Your task to perform on an android device: turn on location history Image 0: 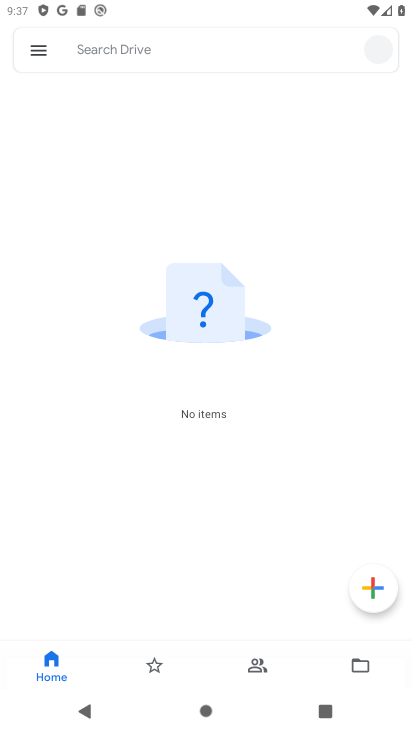
Step 0: press home button
Your task to perform on an android device: turn on location history Image 1: 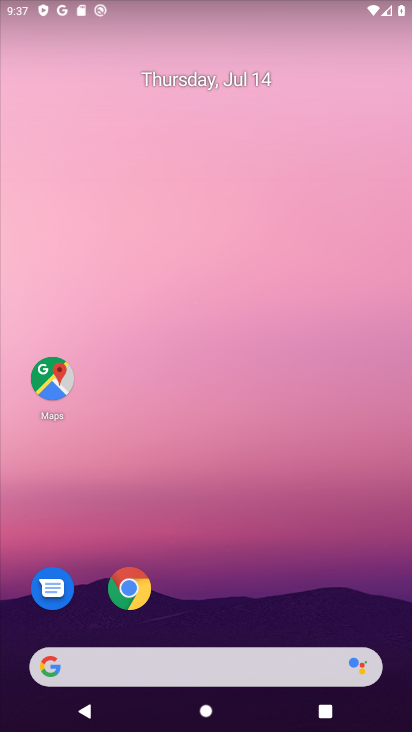
Step 1: click (58, 390)
Your task to perform on an android device: turn on location history Image 2: 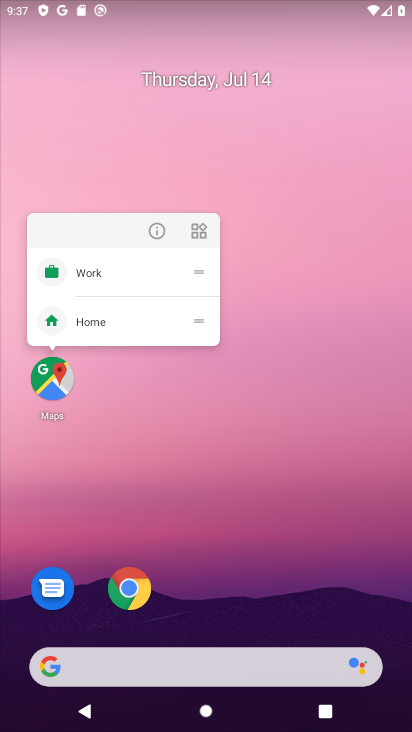
Step 2: click (49, 378)
Your task to perform on an android device: turn on location history Image 3: 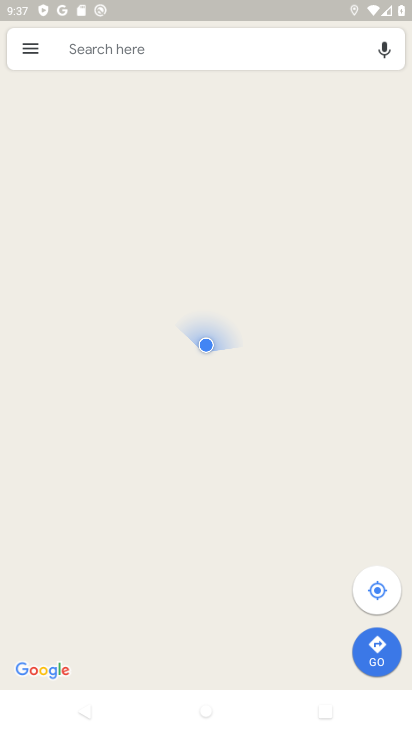
Step 3: click (27, 47)
Your task to perform on an android device: turn on location history Image 4: 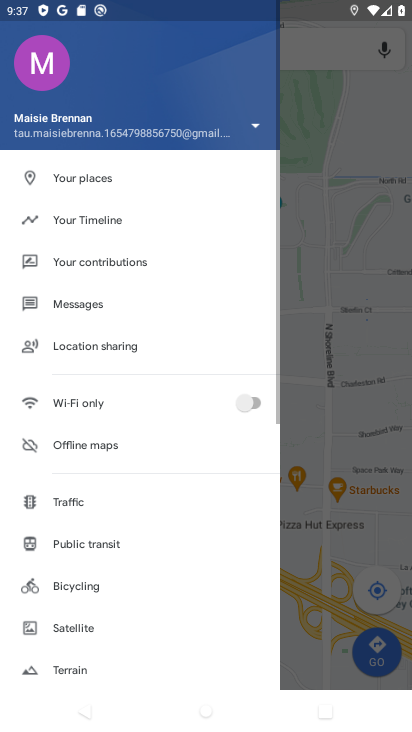
Step 4: click (119, 217)
Your task to perform on an android device: turn on location history Image 5: 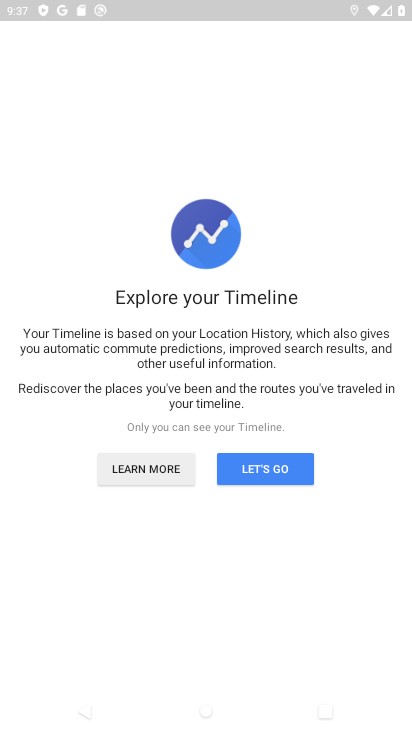
Step 5: click (268, 468)
Your task to perform on an android device: turn on location history Image 6: 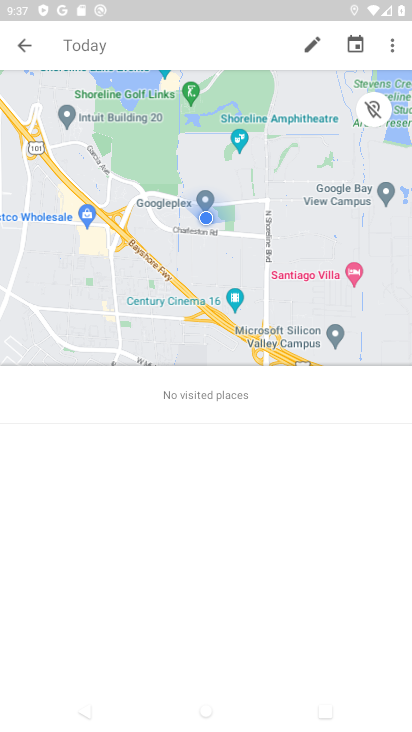
Step 6: click (391, 50)
Your task to perform on an android device: turn on location history Image 7: 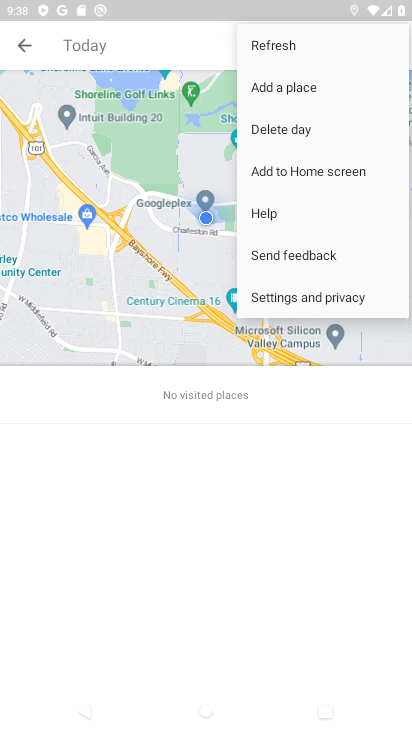
Step 7: click (314, 304)
Your task to perform on an android device: turn on location history Image 8: 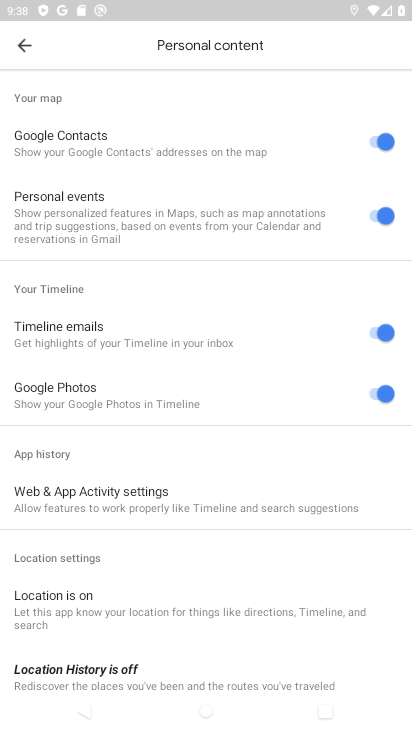
Step 8: drag from (169, 654) to (300, 230)
Your task to perform on an android device: turn on location history Image 9: 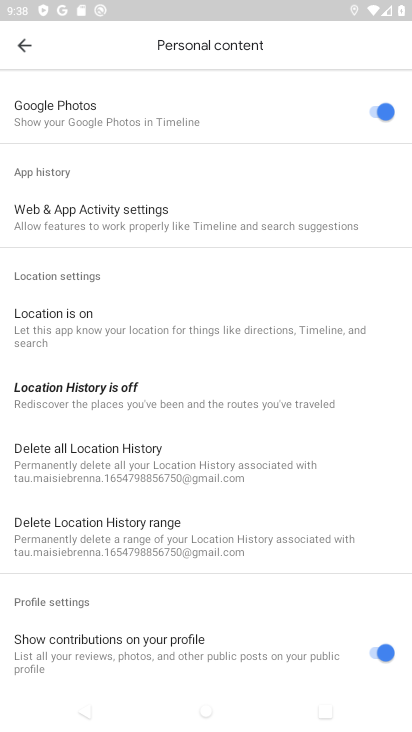
Step 9: click (109, 390)
Your task to perform on an android device: turn on location history Image 10: 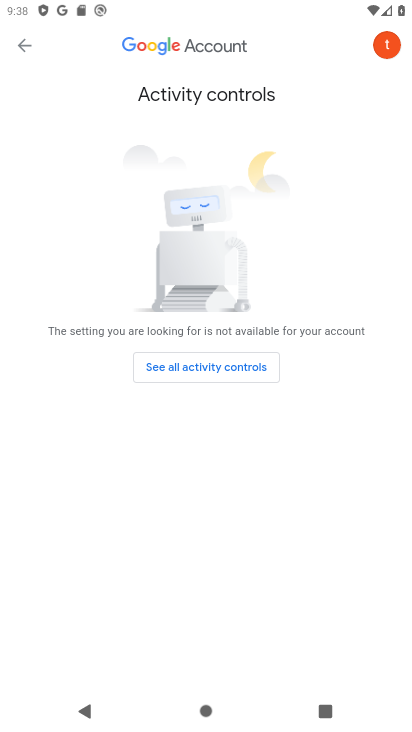
Step 10: task complete